Your task to perform on an android device: turn off airplane mode Image 0: 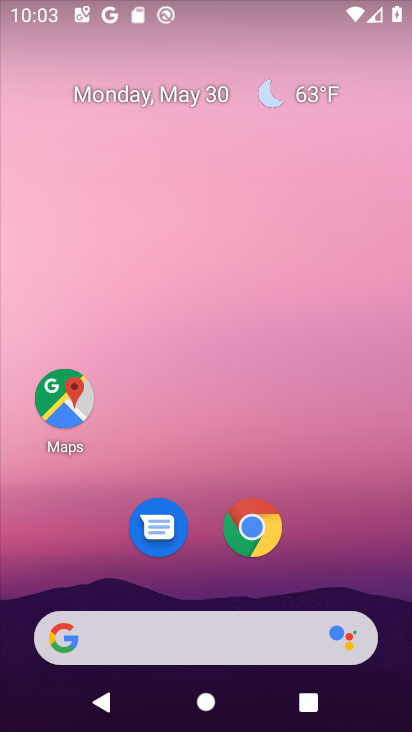
Step 0: drag from (319, 587) to (286, 217)
Your task to perform on an android device: turn off airplane mode Image 1: 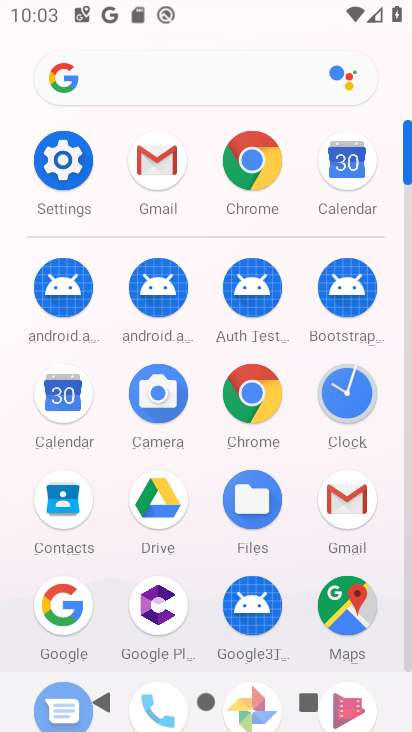
Step 1: click (46, 157)
Your task to perform on an android device: turn off airplane mode Image 2: 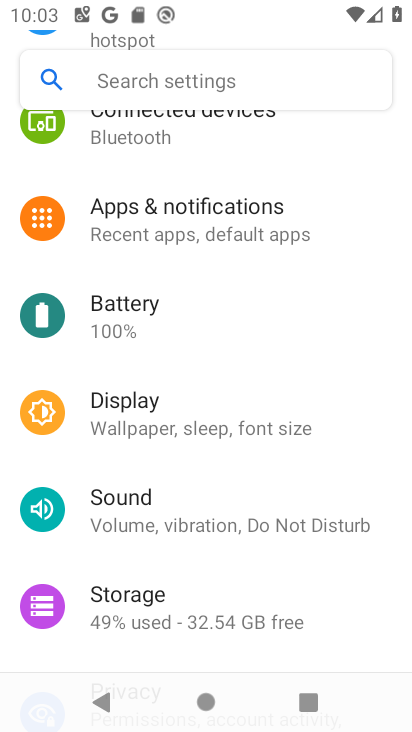
Step 2: drag from (275, 175) to (285, 602)
Your task to perform on an android device: turn off airplane mode Image 3: 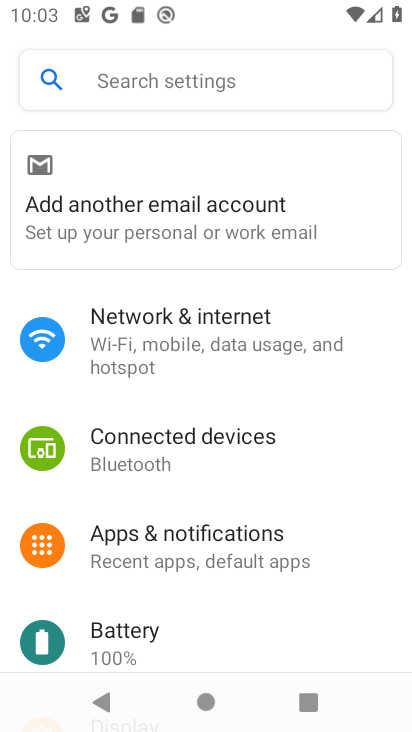
Step 3: click (240, 315)
Your task to perform on an android device: turn off airplane mode Image 4: 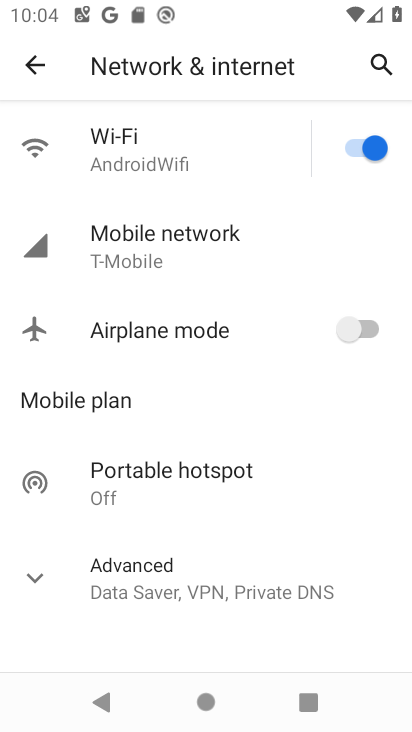
Step 4: task complete